Your task to perform on an android device: open sync settings in chrome Image 0: 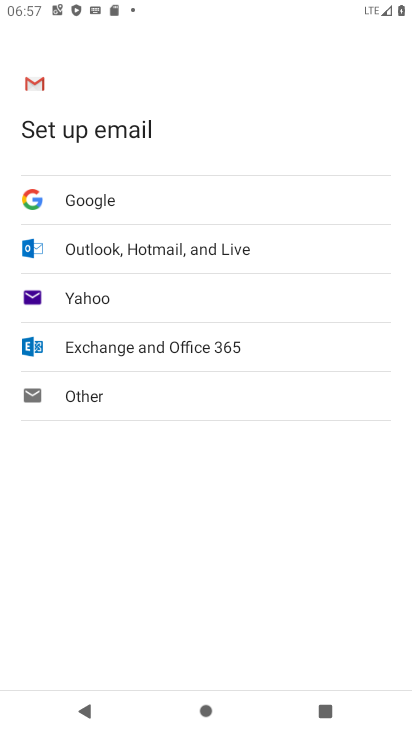
Step 0: press home button
Your task to perform on an android device: open sync settings in chrome Image 1: 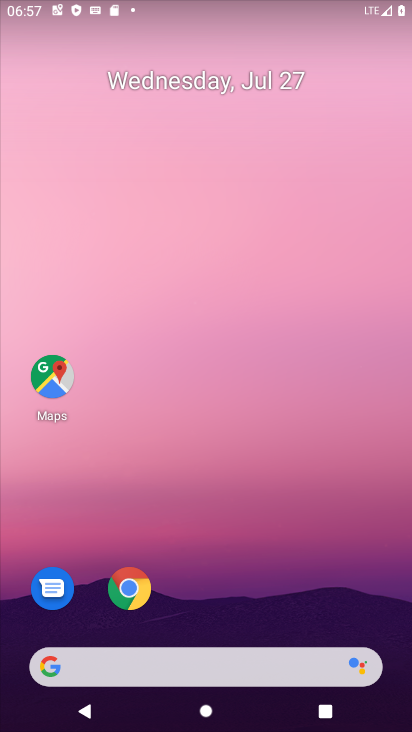
Step 1: drag from (276, 661) to (273, 120)
Your task to perform on an android device: open sync settings in chrome Image 2: 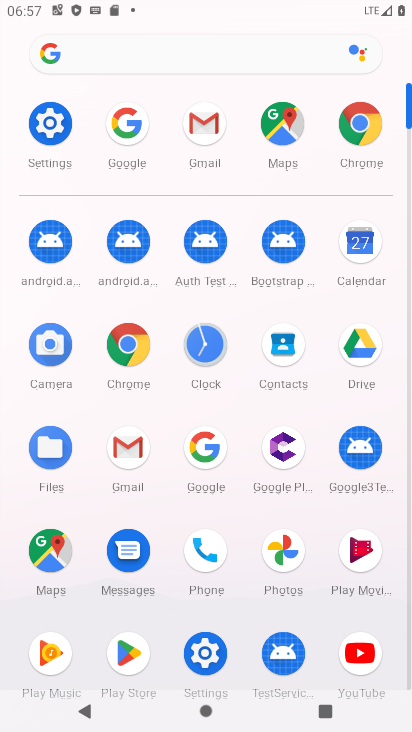
Step 2: click (136, 341)
Your task to perform on an android device: open sync settings in chrome Image 3: 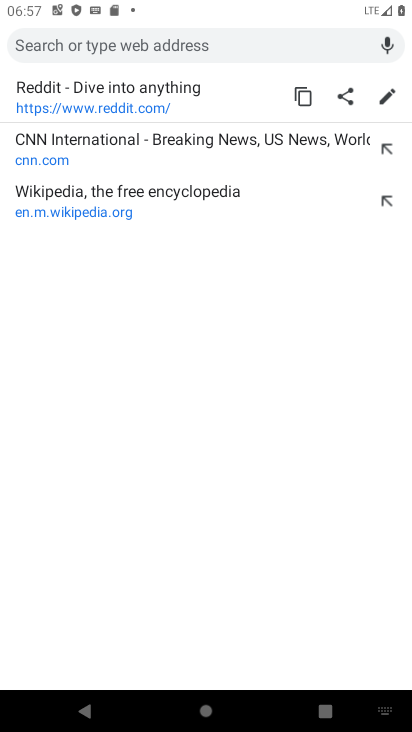
Step 3: click (225, 51)
Your task to perform on an android device: open sync settings in chrome Image 4: 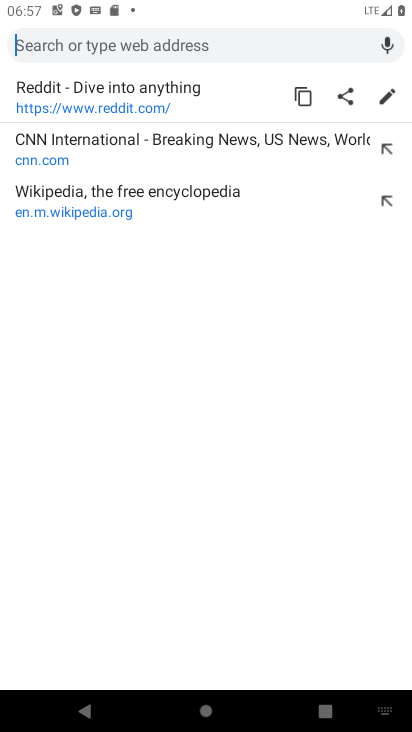
Step 4: press back button
Your task to perform on an android device: open sync settings in chrome Image 5: 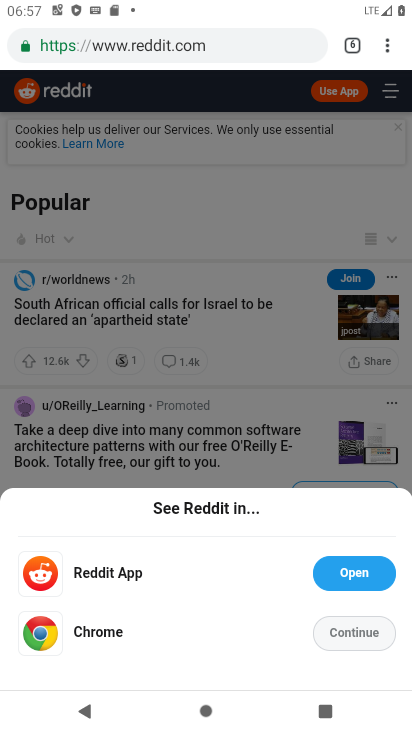
Step 5: click (385, 40)
Your task to perform on an android device: open sync settings in chrome Image 6: 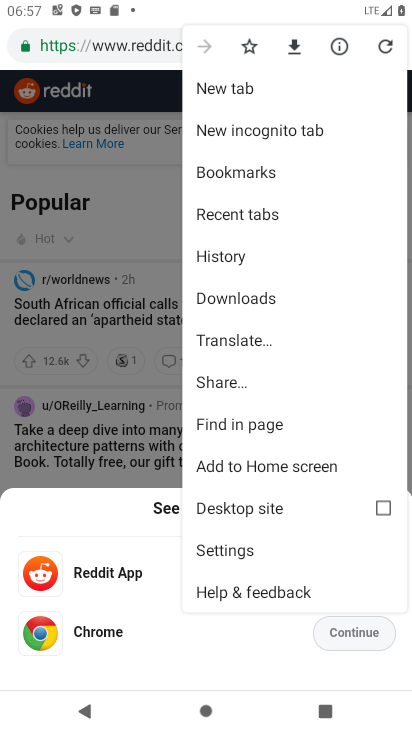
Step 6: click (232, 543)
Your task to perform on an android device: open sync settings in chrome Image 7: 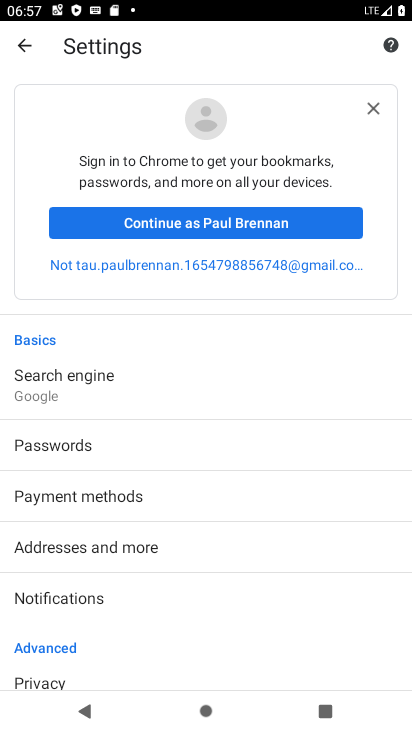
Step 7: drag from (180, 587) to (191, 70)
Your task to perform on an android device: open sync settings in chrome Image 8: 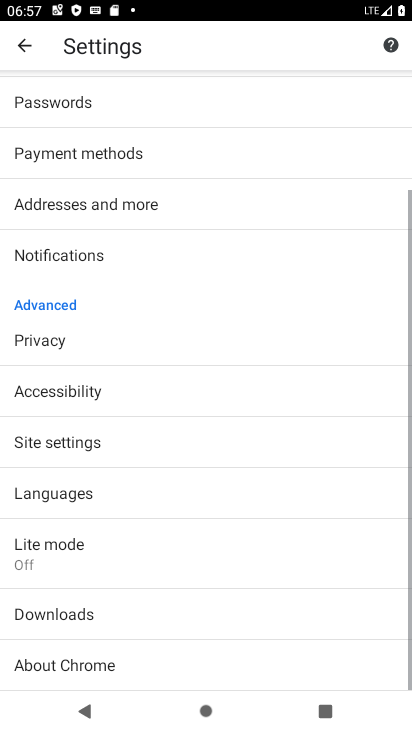
Step 8: click (103, 448)
Your task to perform on an android device: open sync settings in chrome Image 9: 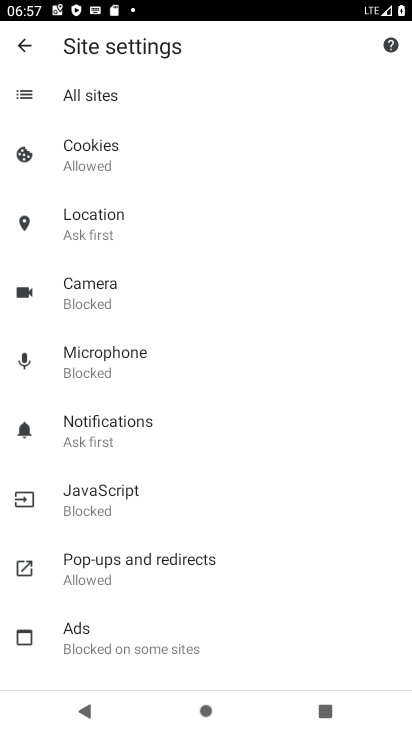
Step 9: drag from (135, 625) to (163, 198)
Your task to perform on an android device: open sync settings in chrome Image 10: 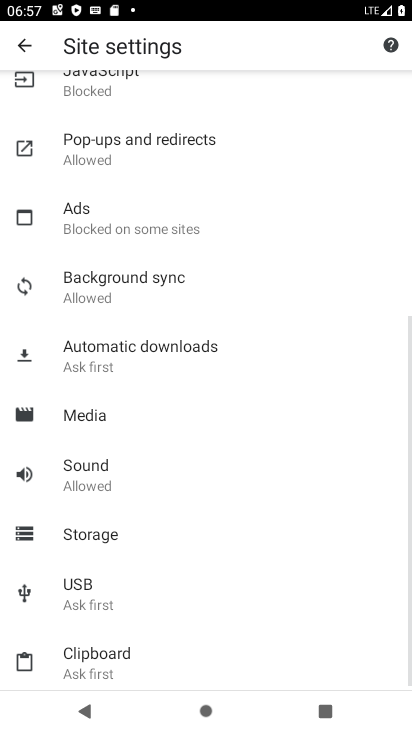
Step 10: click (156, 286)
Your task to perform on an android device: open sync settings in chrome Image 11: 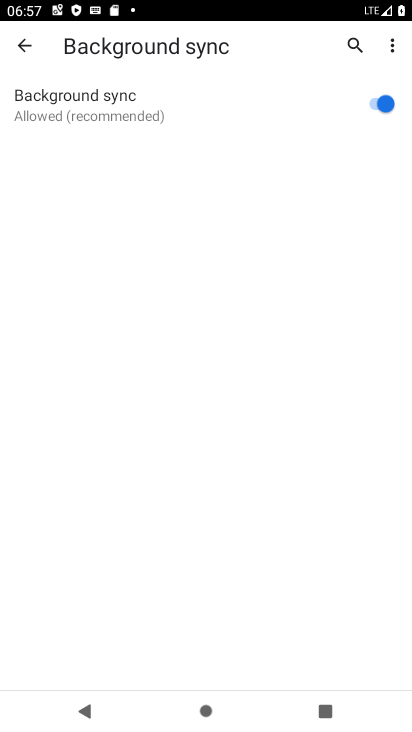
Step 11: task complete